Your task to perform on an android device: Open calendar and show me the first week of next month Image 0: 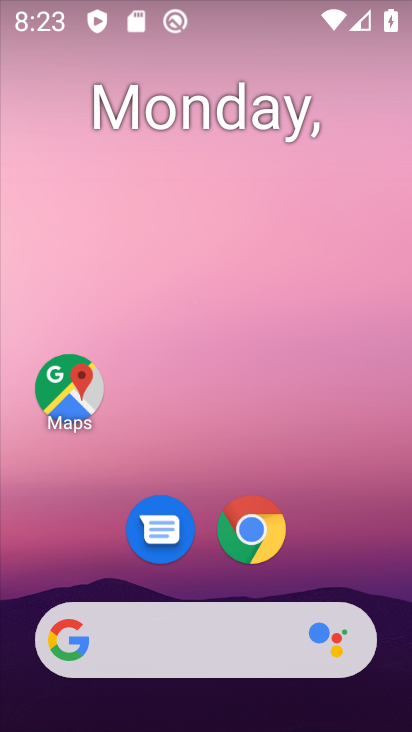
Step 0: drag from (54, 518) to (205, 193)
Your task to perform on an android device: Open calendar and show me the first week of next month Image 1: 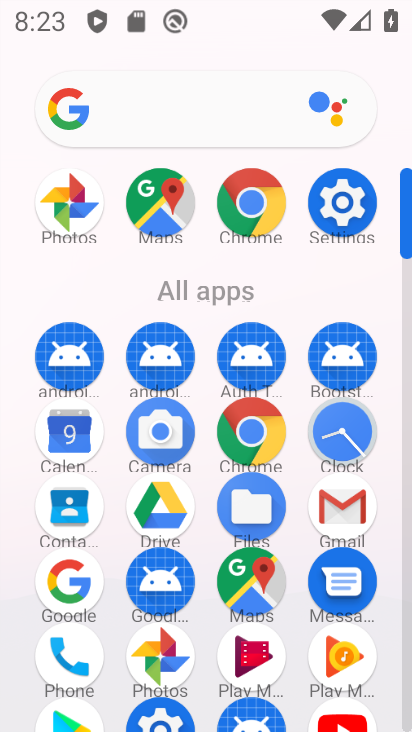
Step 1: click (75, 425)
Your task to perform on an android device: Open calendar and show me the first week of next month Image 2: 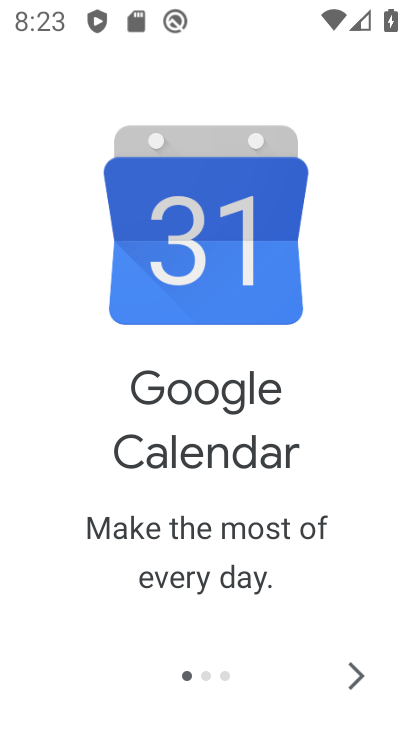
Step 2: click (358, 678)
Your task to perform on an android device: Open calendar and show me the first week of next month Image 3: 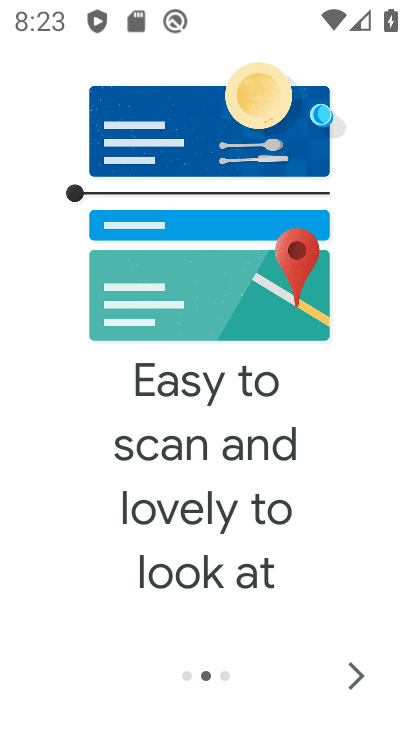
Step 3: click (357, 678)
Your task to perform on an android device: Open calendar and show me the first week of next month Image 4: 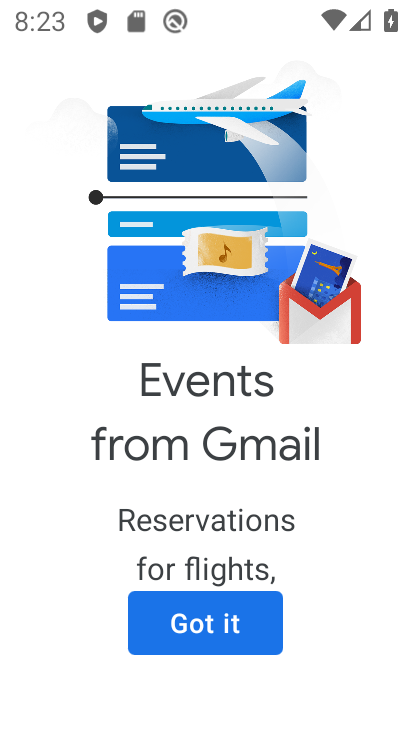
Step 4: click (247, 617)
Your task to perform on an android device: Open calendar and show me the first week of next month Image 5: 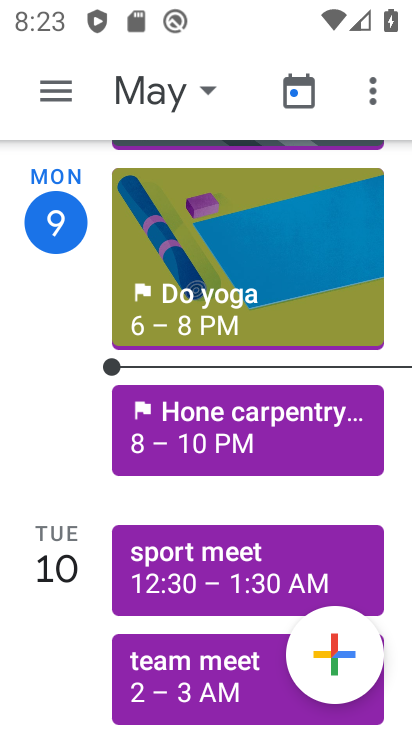
Step 5: click (142, 78)
Your task to perform on an android device: Open calendar and show me the first week of next month Image 6: 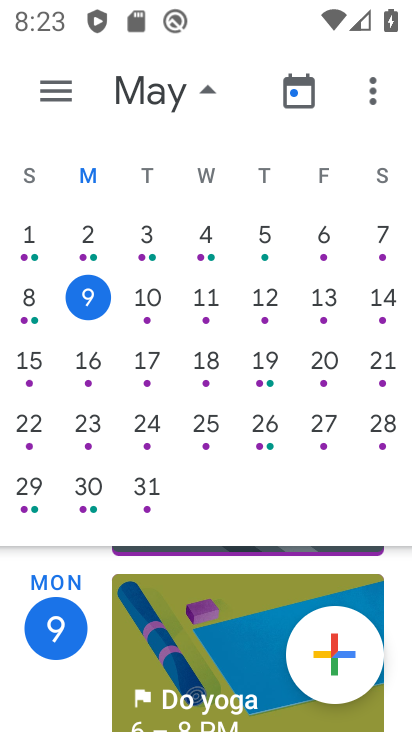
Step 6: drag from (357, 377) to (3, 292)
Your task to perform on an android device: Open calendar and show me the first week of next month Image 7: 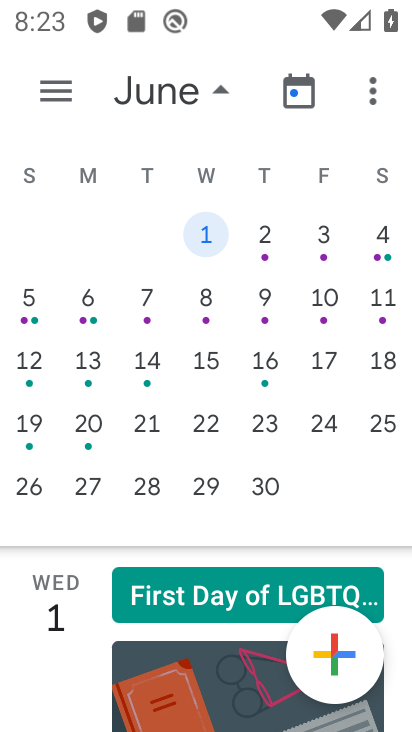
Step 7: click (275, 236)
Your task to perform on an android device: Open calendar and show me the first week of next month Image 8: 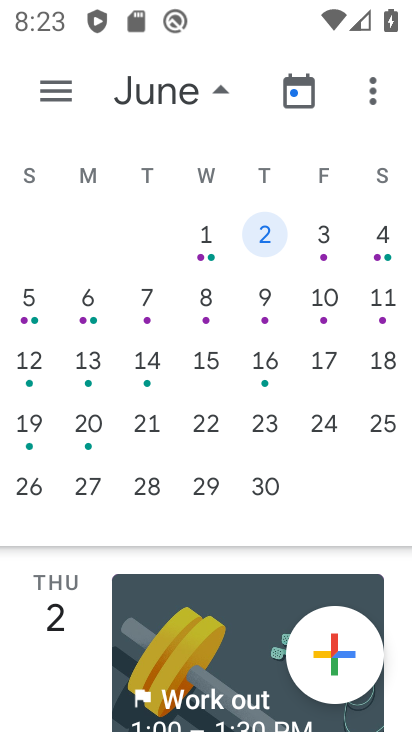
Step 8: click (332, 226)
Your task to perform on an android device: Open calendar and show me the first week of next month Image 9: 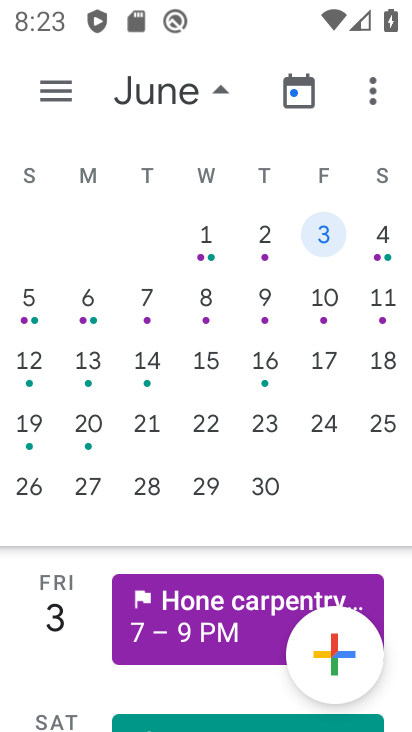
Step 9: click (380, 239)
Your task to perform on an android device: Open calendar and show me the first week of next month Image 10: 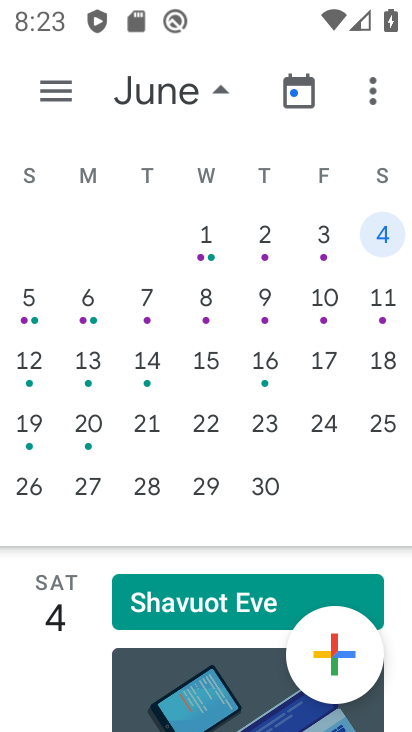
Step 10: click (35, 297)
Your task to perform on an android device: Open calendar and show me the first week of next month Image 11: 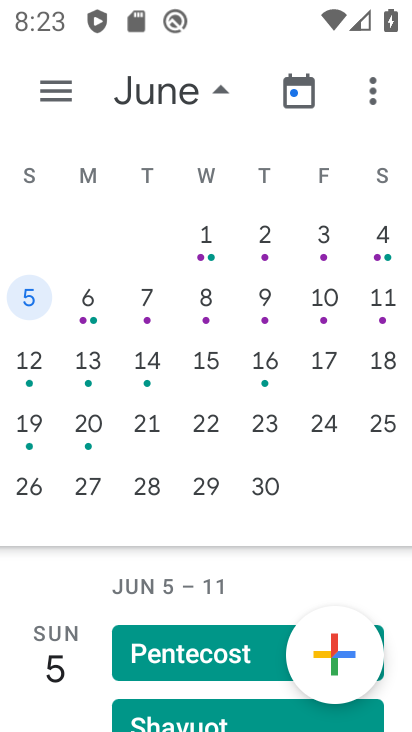
Step 11: click (95, 298)
Your task to perform on an android device: Open calendar and show me the first week of next month Image 12: 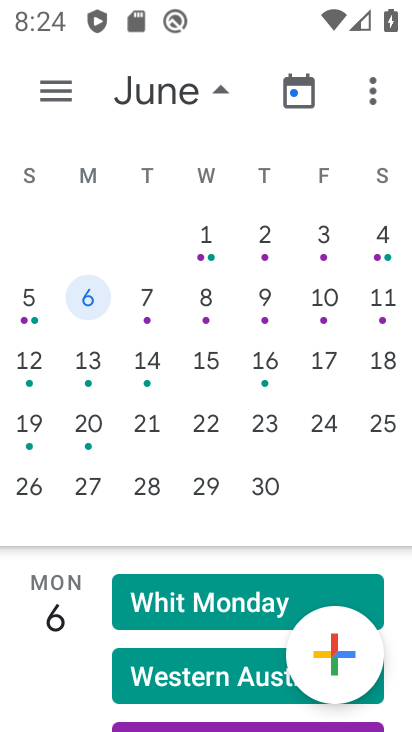
Step 12: task complete